Your task to perform on an android device: manage bookmarks in the chrome app Image 0: 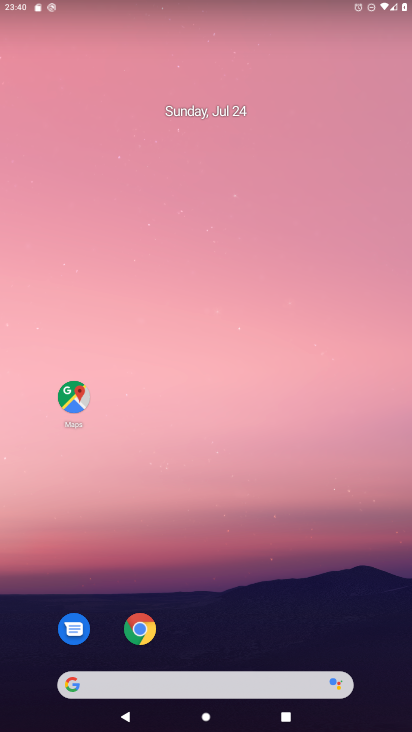
Step 0: drag from (201, 615) to (222, 170)
Your task to perform on an android device: manage bookmarks in the chrome app Image 1: 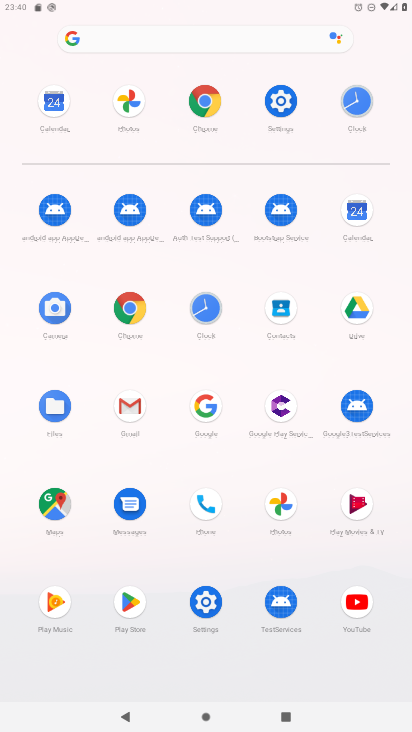
Step 1: click (131, 311)
Your task to perform on an android device: manage bookmarks in the chrome app Image 2: 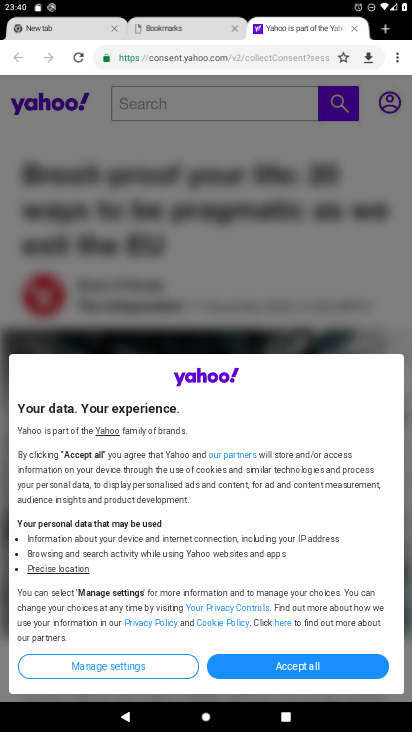
Step 2: drag from (389, 50) to (280, 110)
Your task to perform on an android device: manage bookmarks in the chrome app Image 3: 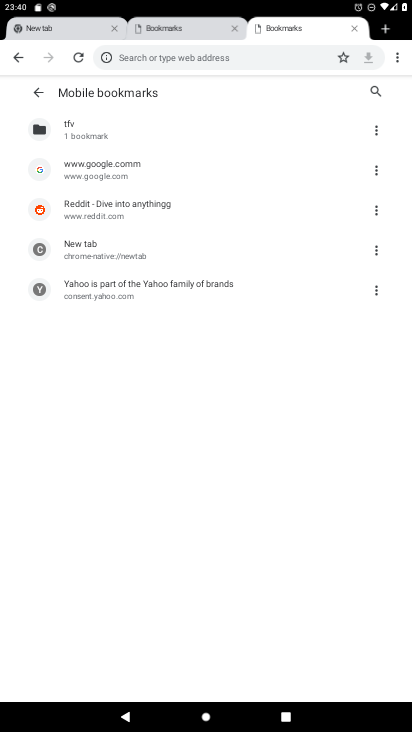
Step 3: drag from (201, 319) to (211, 142)
Your task to perform on an android device: manage bookmarks in the chrome app Image 4: 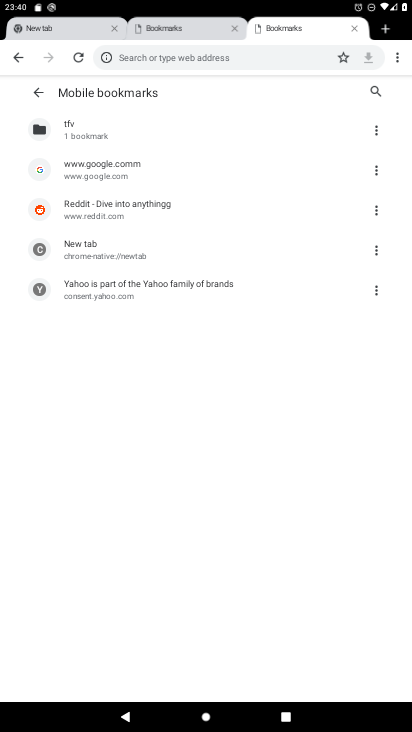
Step 4: drag from (195, 131) to (249, 578)
Your task to perform on an android device: manage bookmarks in the chrome app Image 5: 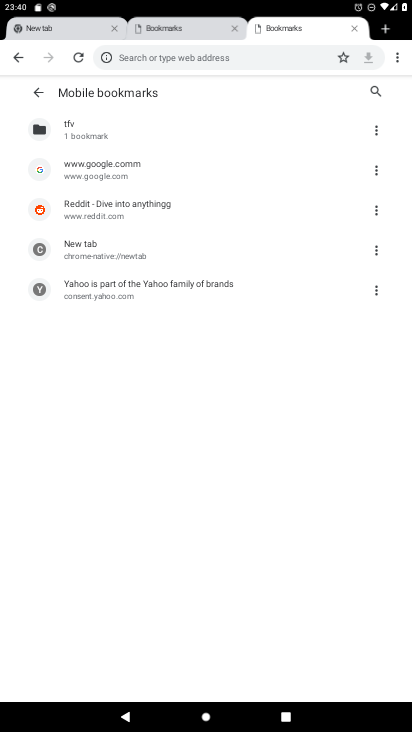
Step 5: click (150, 217)
Your task to perform on an android device: manage bookmarks in the chrome app Image 6: 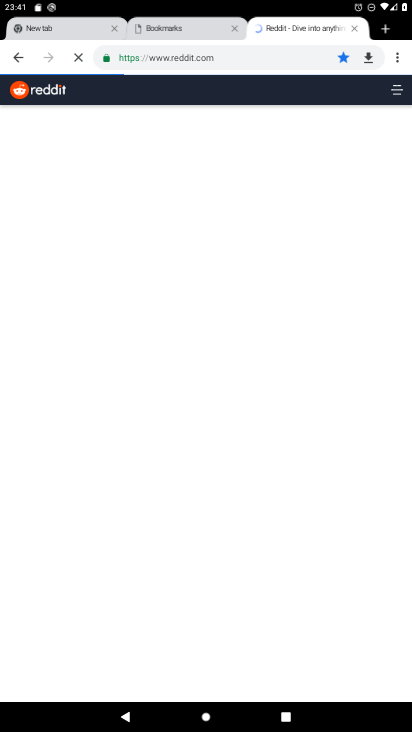
Step 6: click (225, 145)
Your task to perform on an android device: manage bookmarks in the chrome app Image 7: 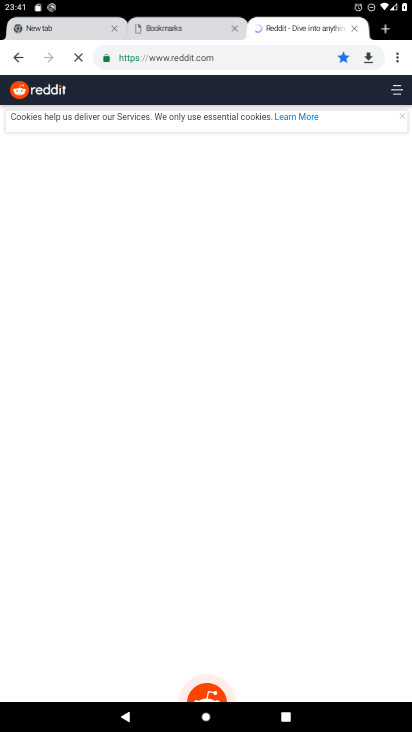
Step 7: task complete